Your task to perform on an android device: toggle wifi Image 0: 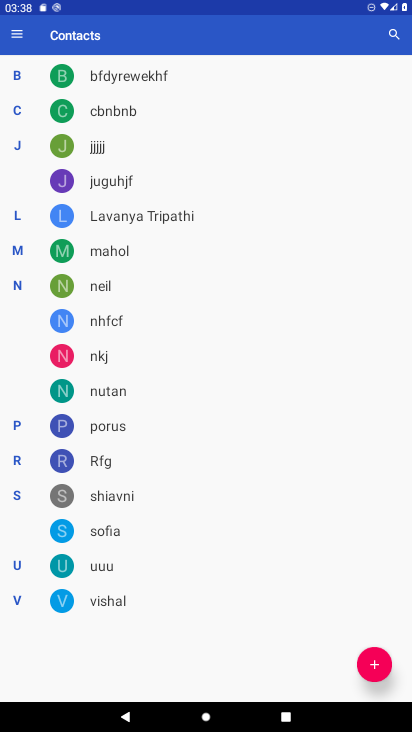
Step 0: press home button
Your task to perform on an android device: toggle wifi Image 1: 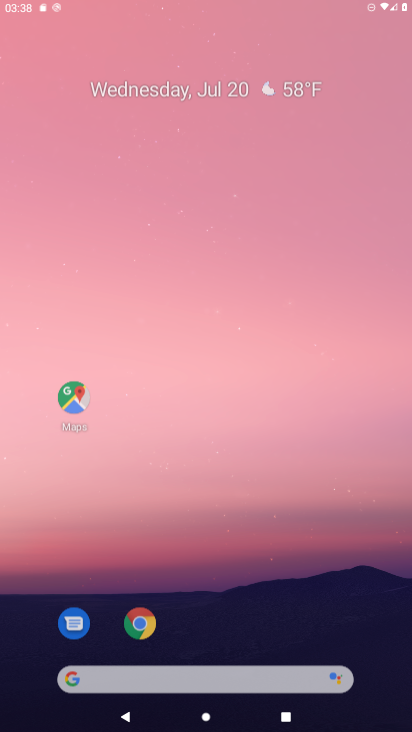
Step 1: drag from (319, 3) to (259, 537)
Your task to perform on an android device: toggle wifi Image 2: 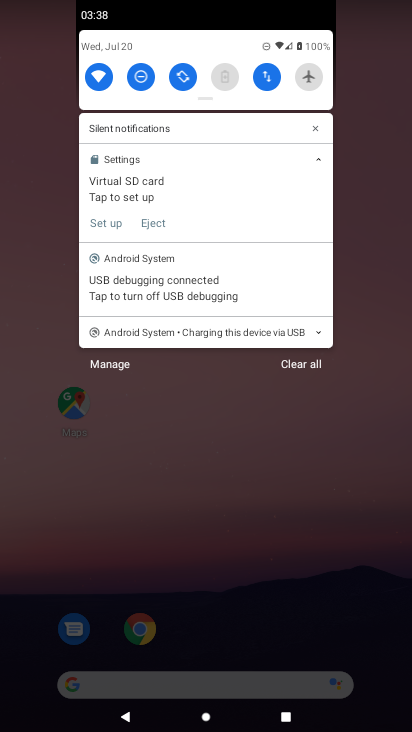
Step 2: click (93, 86)
Your task to perform on an android device: toggle wifi Image 3: 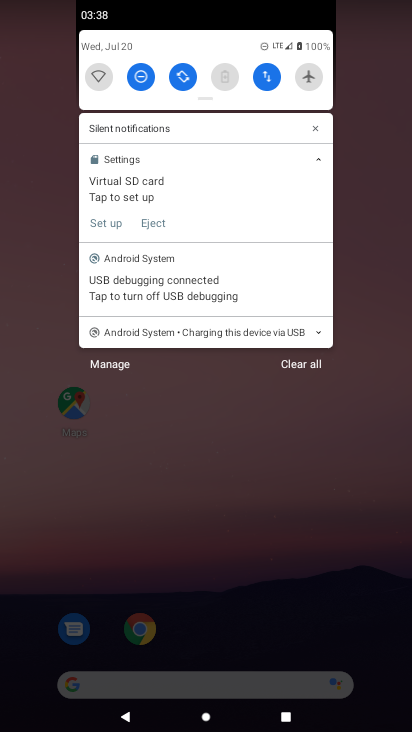
Step 3: task complete